Your task to perform on an android device: Go to eBay Image 0: 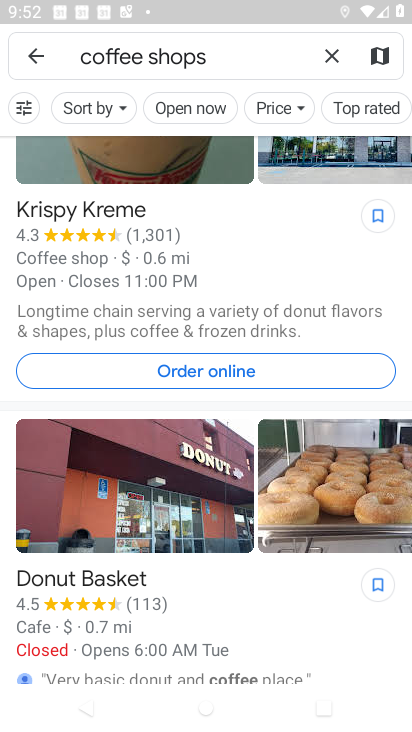
Step 0: press back button
Your task to perform on an android device: Go to eBay Image 1: 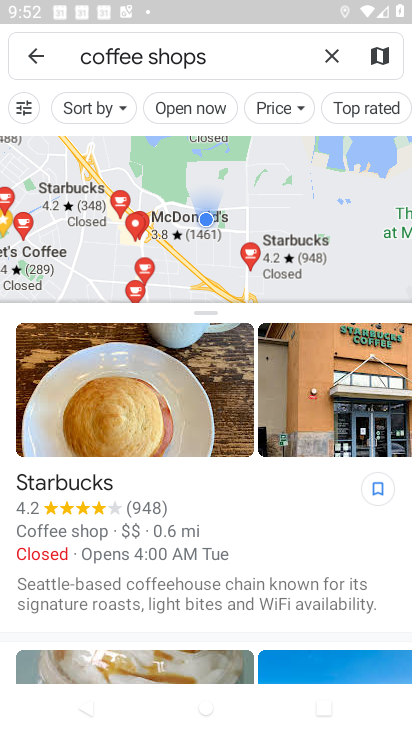
Step 1: press home button
Your task to perform on an android device: Go to eBay Image 2: 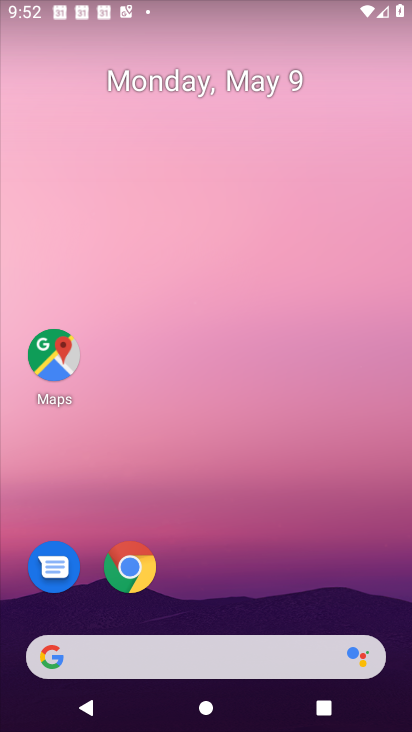
Step 2: click (118, 576)
Your task to perform on an android device: Go to eBay Image 3: 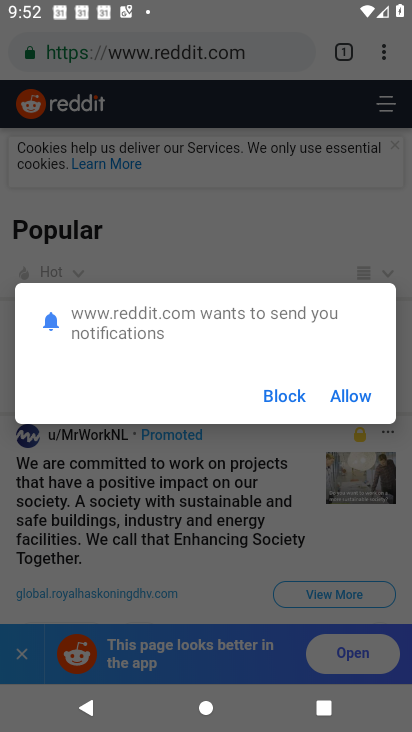
Step 3: press back button
Your task to perform on an android device: Go to eBay Image 4: 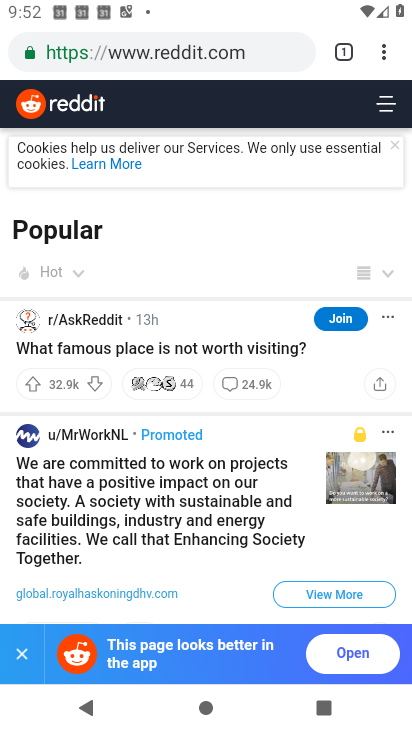
Step 4: click (198, 47)
Your task to perform on an android device: Go to eBay Image 5: 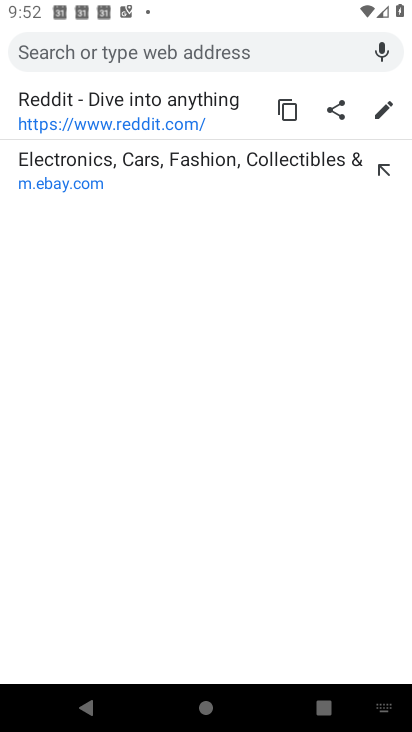
Step 5: click (112, 167)
Your task to perform on an android device: Go to eBay Image 6: 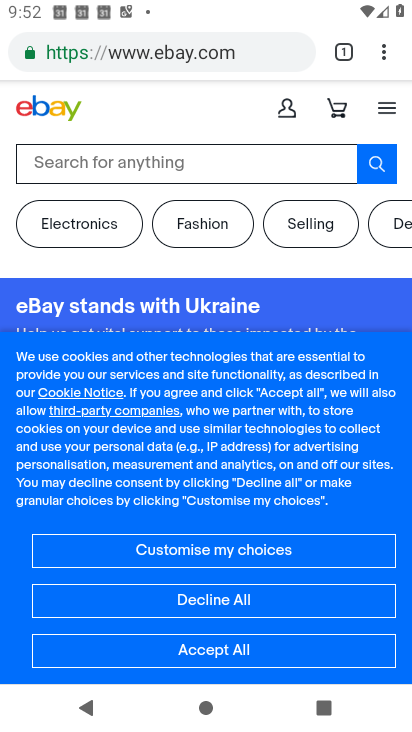
Step 6: task complete